Your task to perform on an android device: Do I have any events tomorrow? Image 0: 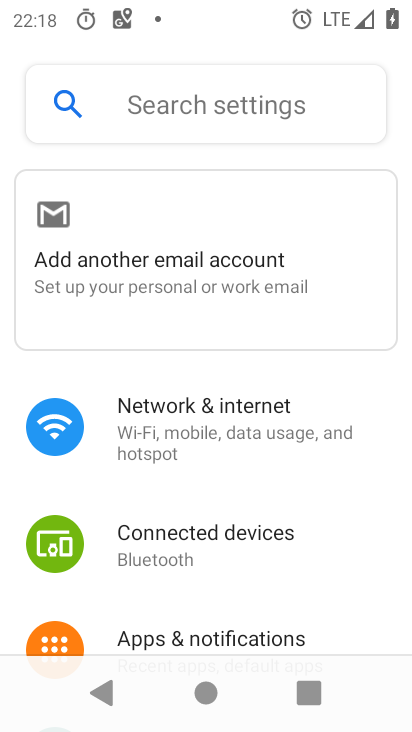
Step 0: drag from (199, 543) to (201, 113)
Your task to perform on an android device: Do I have any events tomorrow? Image 1: 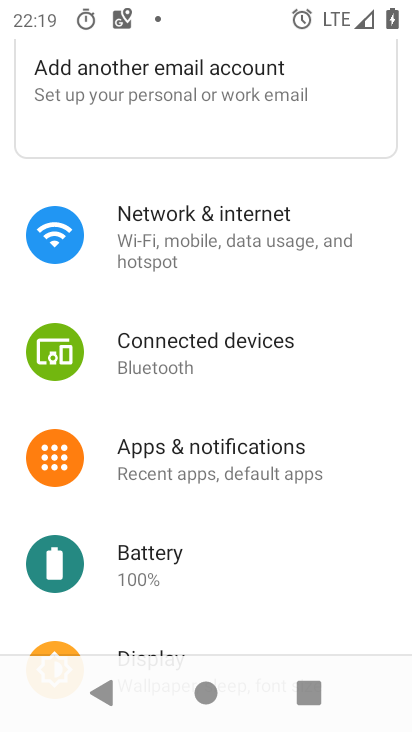
Step 1: press home button
Your task to perform on an android device: Do I have any events tomorrow? Image 2: 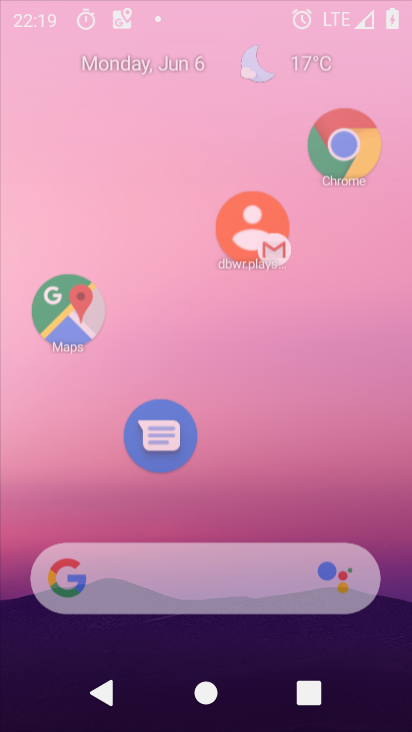
Step 2: drag from (236, 506) to (236, 92)
Your task to perform on an android device: Do I have any events tomorrow? Image 3: 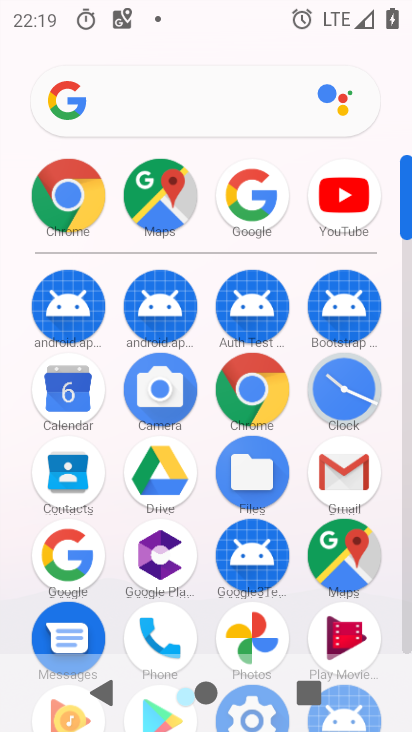
Step 3: click (72, 361)
Your task to perform on an android device: Do I have any events tomorrow? Image 4: 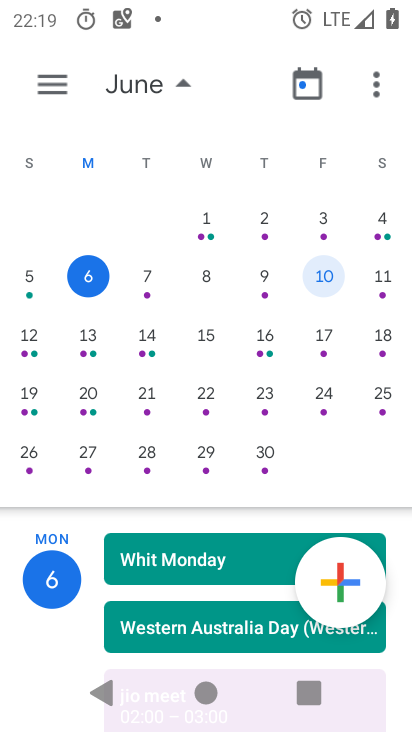
Step 4: click (143, 288)
Your task to perform on an android device: Do I have any events tomorrow? Image 5: 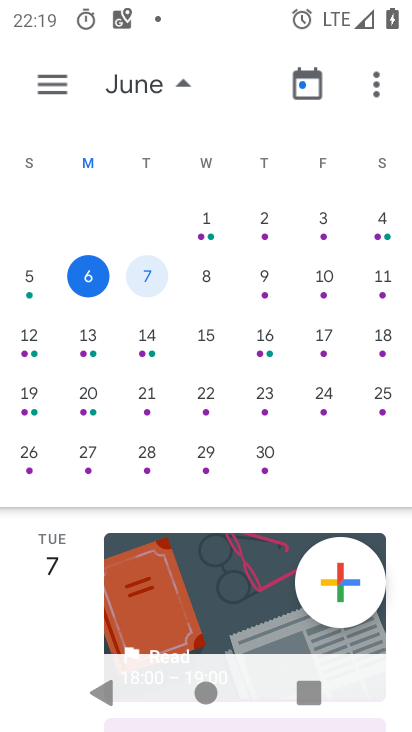
Step 5: task complete